Your task to perform on an android device: toggle location history Image 0: 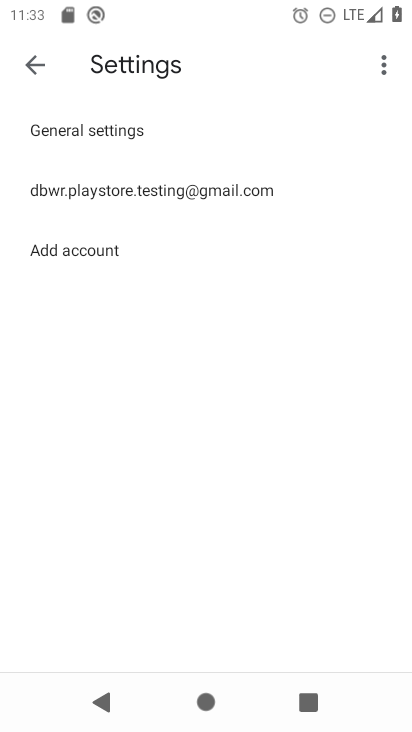
Step 0: press home button
Your task to perform on an android device: toggle location history Image 1: 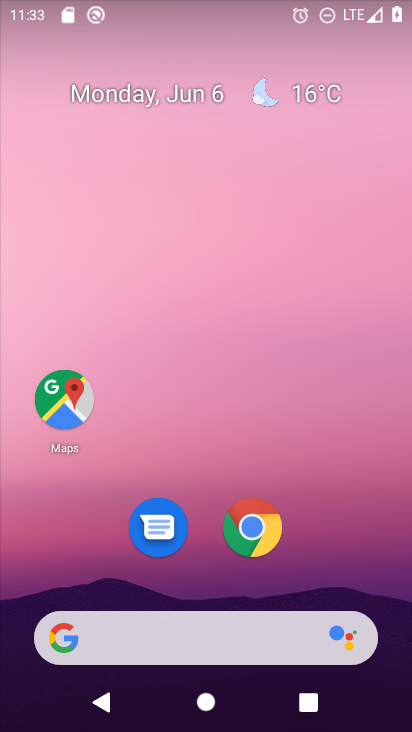
Step 1: drag from (346, 508) to (388, 288)
Your task to perform on an android device: toggle location history Image 2: 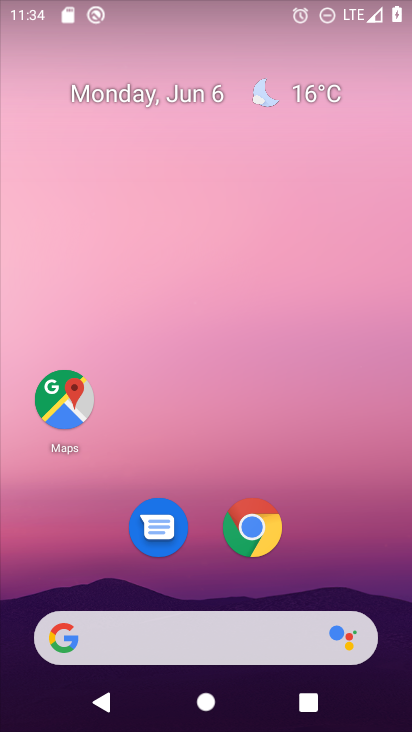
Step 2: drag from (287, 423) to (284, 80)
Your task to perform on an android device: toggle location history Image 3: 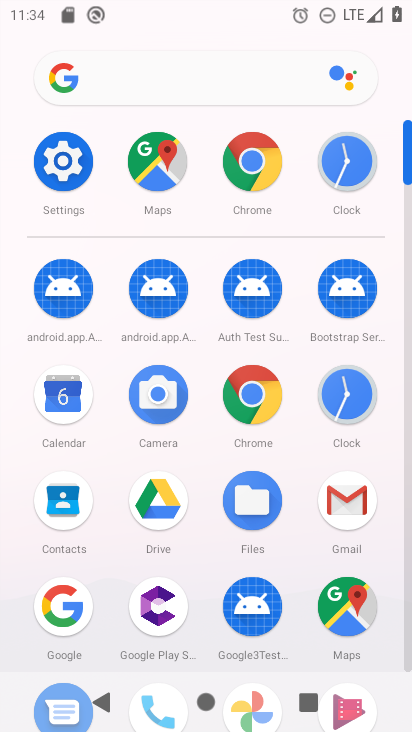
Step 3: click (59, 171)
Your task to perform on an android device: toggle location history Image 4: 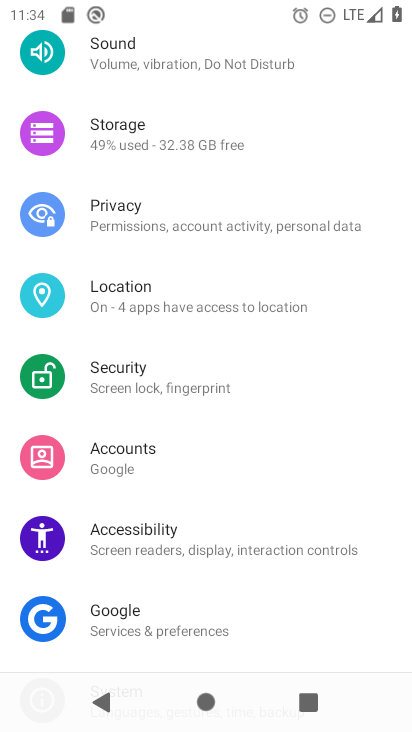
Step 4: drag from (338, 500) to (337, 353)
Your task to perform on an android device: toggle location history Image 5: 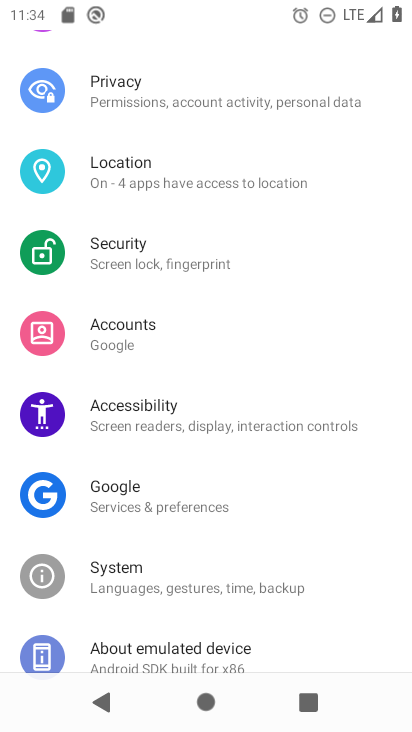
Step 5: drag from (339, 524) to (340, 295)
Your task to perform on an android device: toggle location history Image 6: 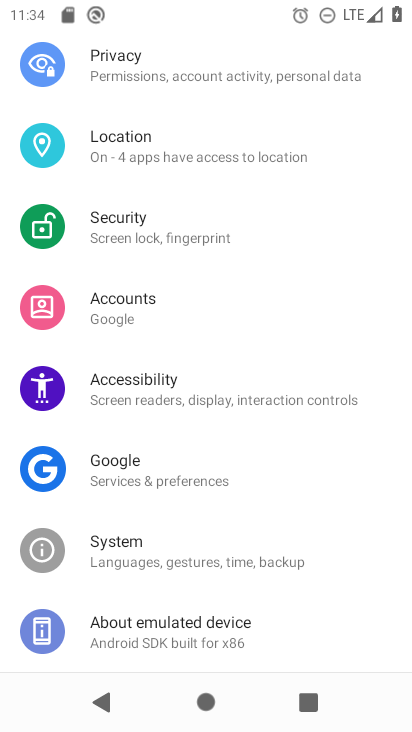
Step 6: drag from (354, 555) to (352, 352)
Your task to perform on an android device: toggle location history Image 7: 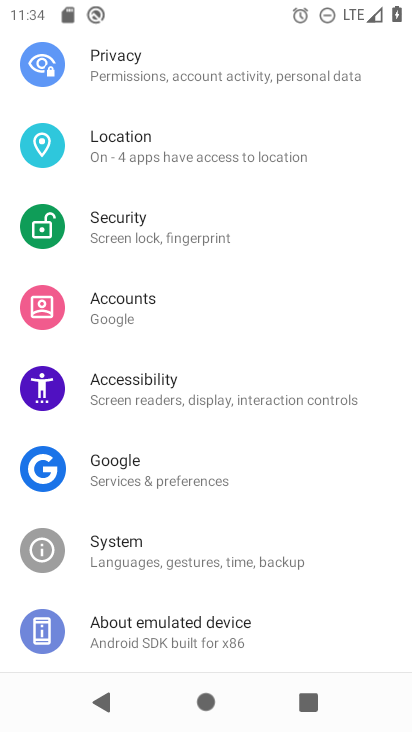
Step 7: drag from (340, 536) to (340, 365)
Your task to perform on an android device: toggle location history Image 8: 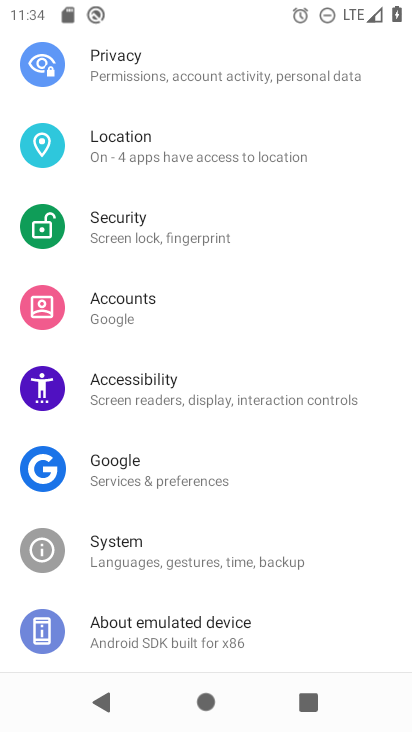
Step 8: drag from (335, 539) to (334, 382)
Your task to perform on an android device: toggle location history Image 9: 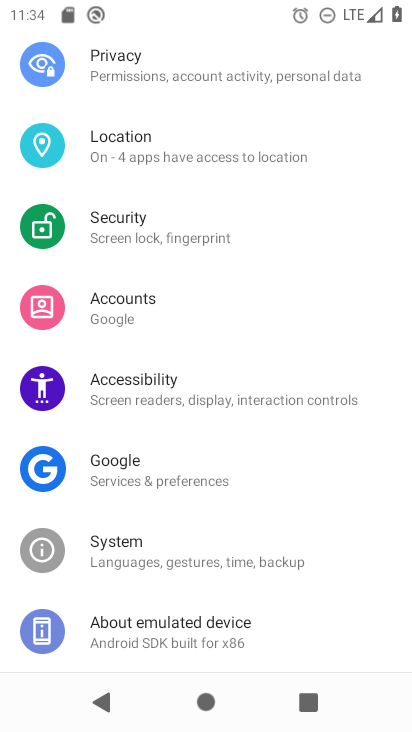
Step 9: drag from (326, 312) to (337, 476)
Your task to perform on an android device: toggle location history Image 10: 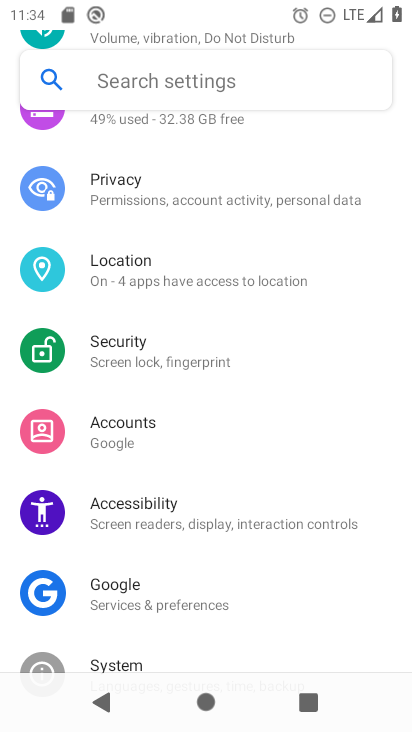
Step 10: drag from (340, 270) to (342, 454)
Your task to perform on an android device: toggle location history Image 11: 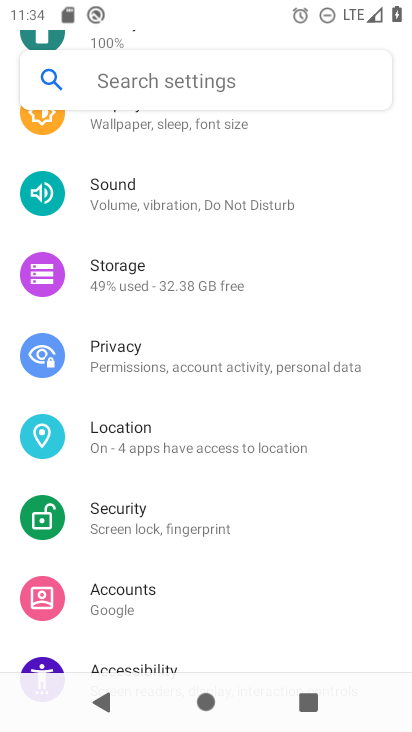
Step 11: drag from (294, 270) to (306, 417)
Your task to perform on an android device: toggle location history Image 12: 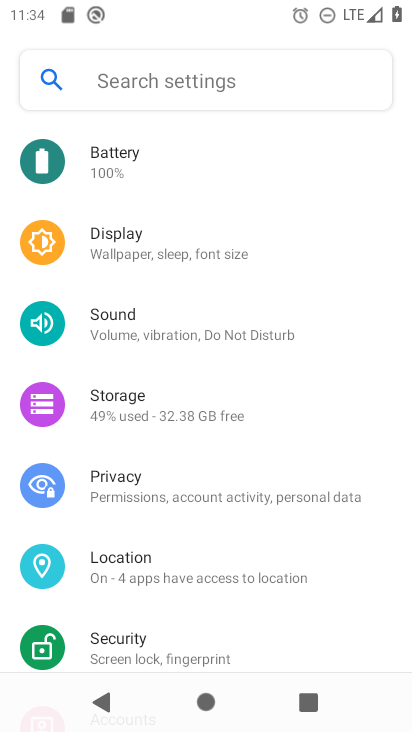
Step 12: drag from (307, 207) to (327, 389)
Your task to perform on an android device: toggle location history Image 13: 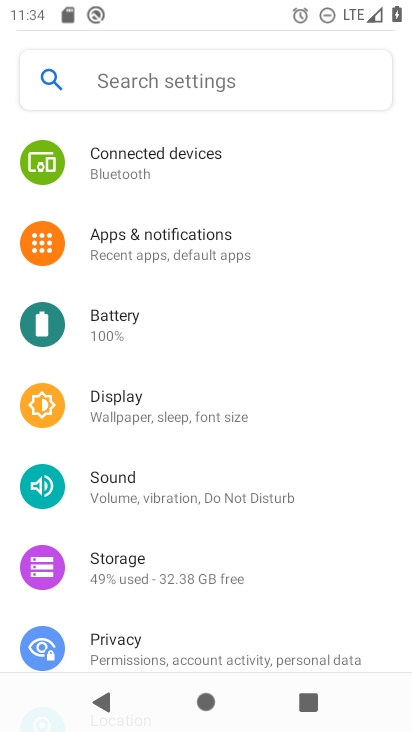
Step 13: drag from (332, 518) to (323, 310)
Your task to perform on an android device: toggle location history Image 14: 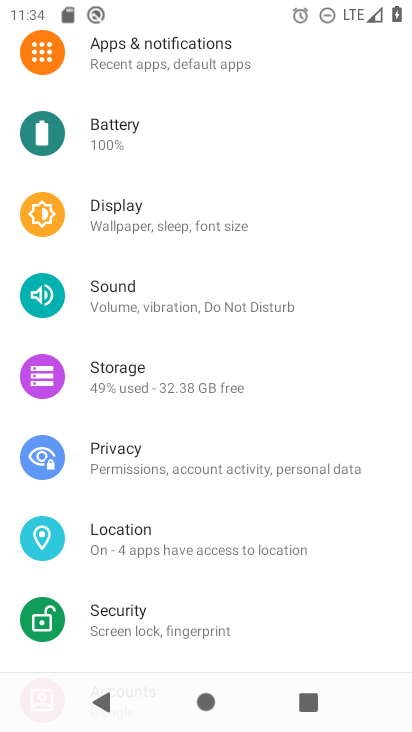
Step 14: click (241, 539)
Your task to perform on an android device: toggle location history Image 15: 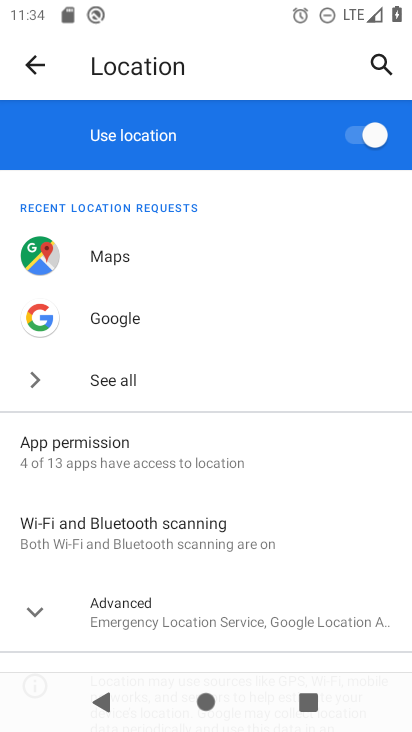
Step 15: drag from (305, 424) to (326, 184)
Your task to perform on an android device: toggle location history Image 16: 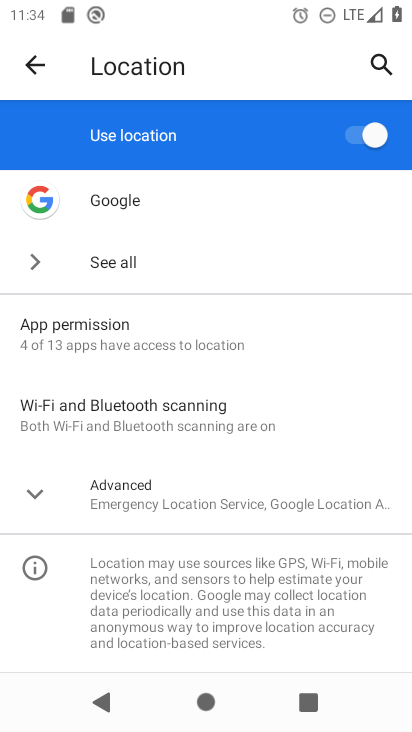
Step 16: click (229, 505)
Your task to perform on an android device: toggle location history Image 17: 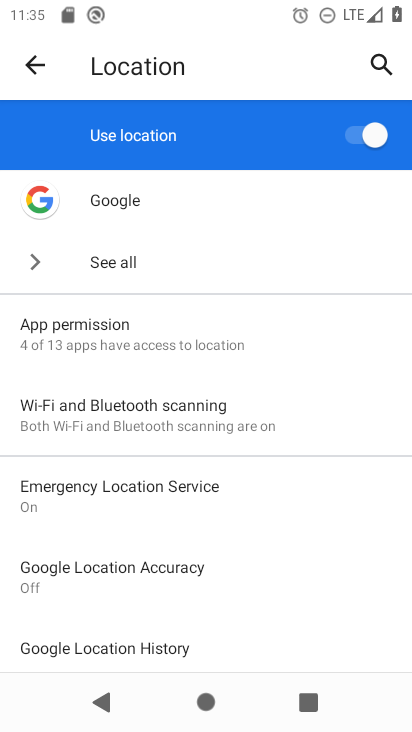
Step 17: drag from (312, 542) to (313, 373)
Your task to perform on an android device: toggle location history Image 18: 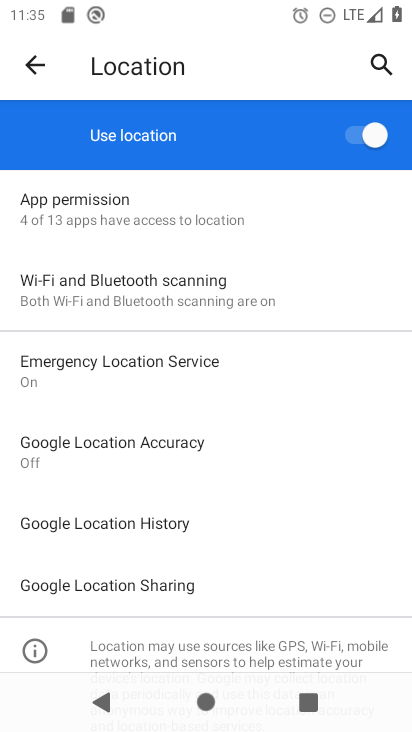
Step 18: drag from (305, 505) to (316, 319)
Your task to perform on an android device: toggle location history Image 19: 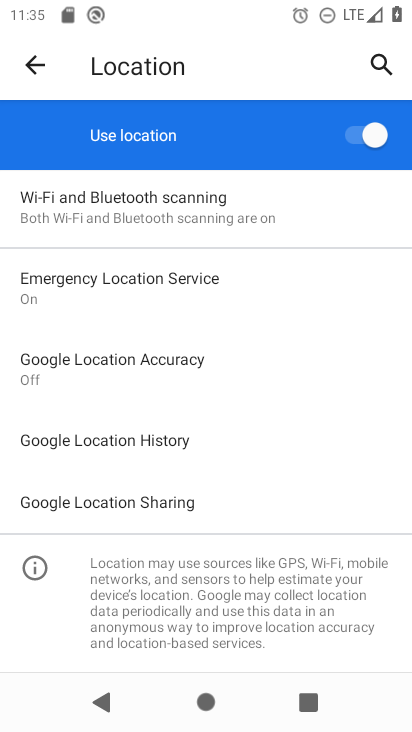
Step 19: drag from (332, 455) to (321, 299)
Your task to perform on an android device: toggle location history Image 20: 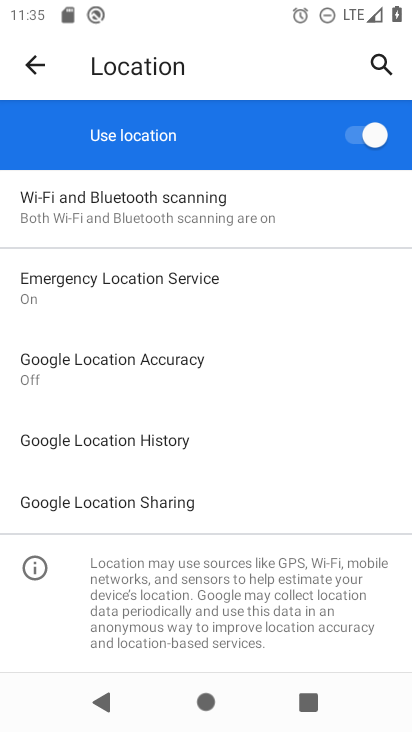
Step 20: click (148, 453)
Your task to perform on an android device: toggle location history Image 21: 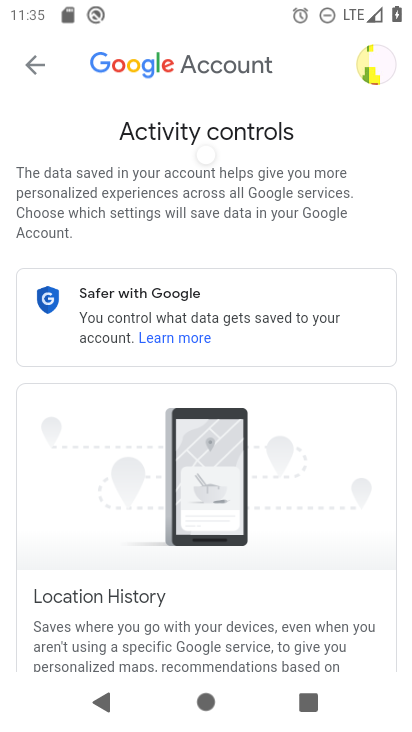
Step 21: drag from (286, 479) to (284, 325)
Your task to perform on an android device: toggle location history Image 22: 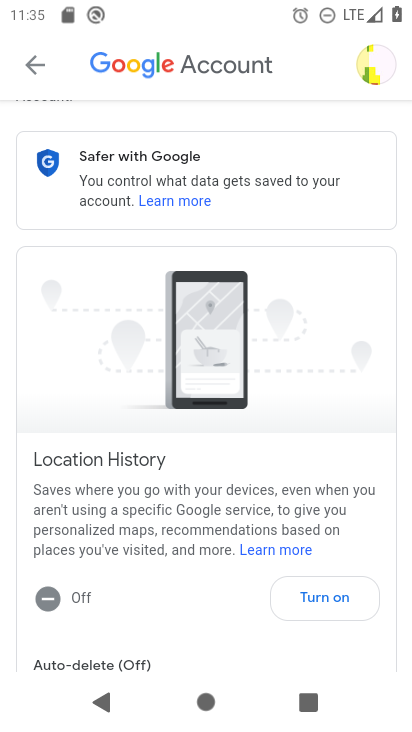
Step 22: click (334, 597)
Your task to perform on an android device: toggle location history Image 23: 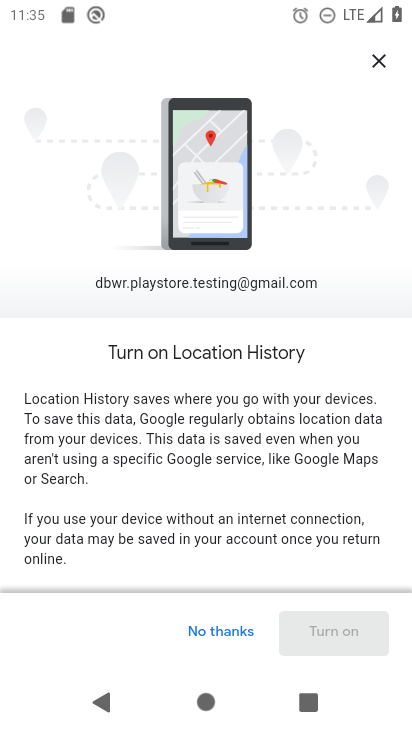
Step 23: drag from (235, 477) to (238, 263)
Your task to perform on an android device: toggle location history Image 24: 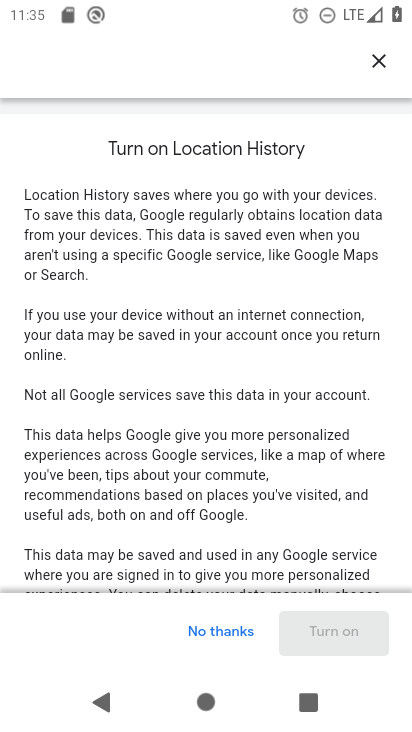
Step 24: drag from (241, 454) to (244, 343)
Your task to perform on an android device: toggle location history Image 25: 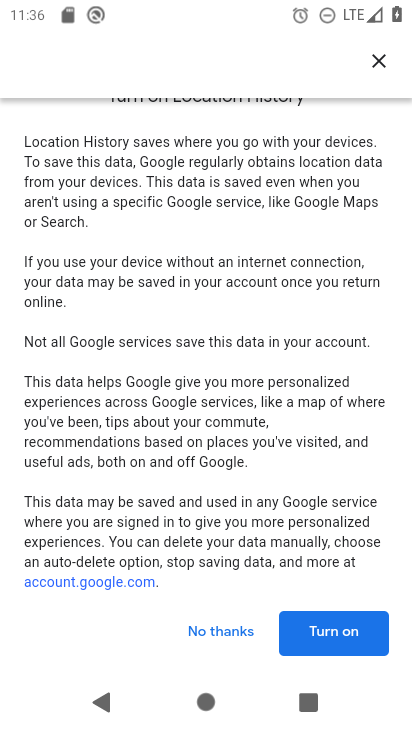
Step 25: click (307, 634)
Your task to perform on an android device: toggle location history Image 26: 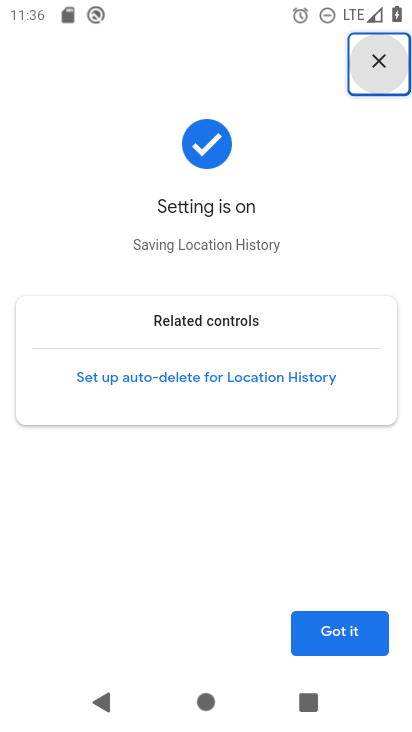
Step 26: task complete